Your task to perform on an android device: find photos in the google photos app Image 0: 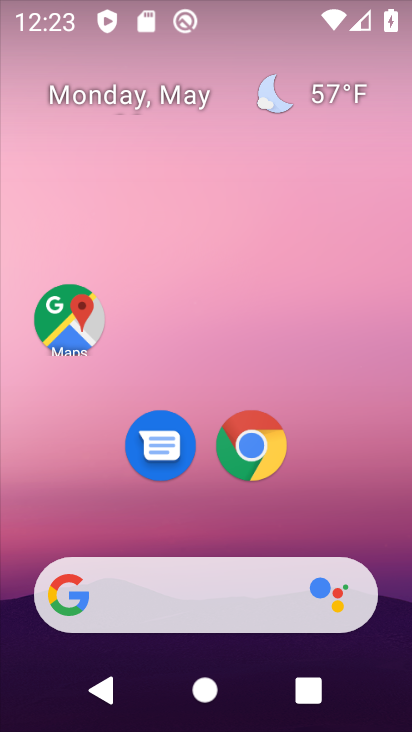
Step 0: drag from (379, 571) to (316, 124)
Your task to perform on an android device: find photos in the google photos app Image 1: 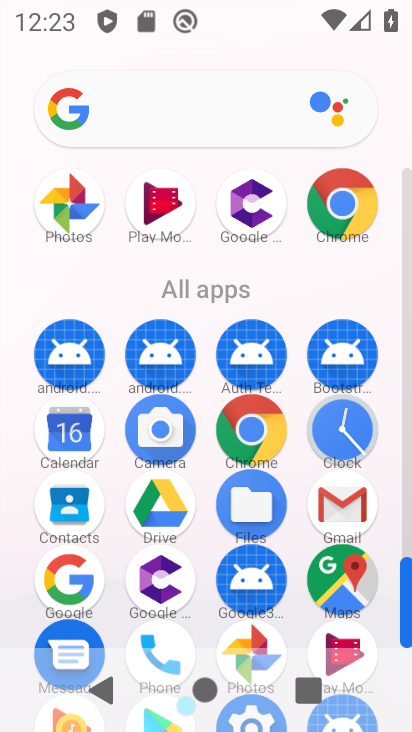
Step 1: click (246, 634)
Your task to perform on an android device: find photos in the google photos app Image 2: 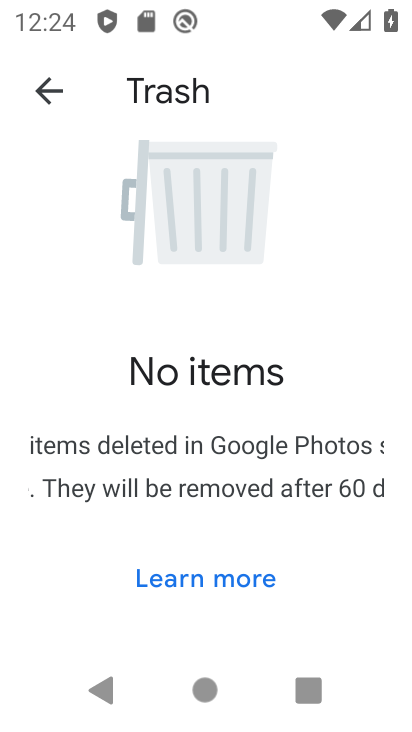
Step 2: task complete